Your task to perform on an android device: toggle airplane mode Image 0: 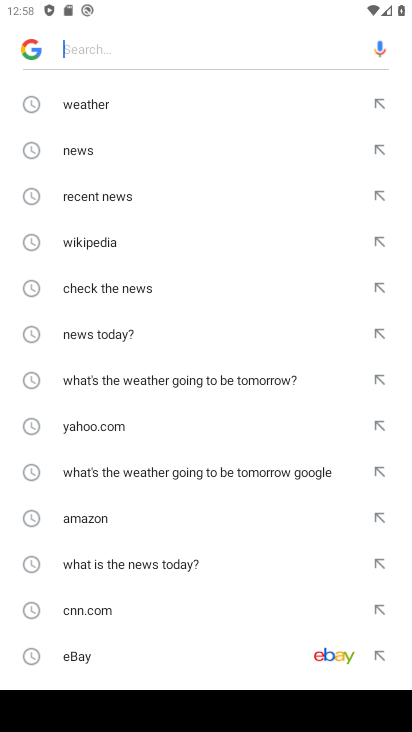
Step 0: press home button
Your task to perform on an android device: toggle airplane mode Image 1: 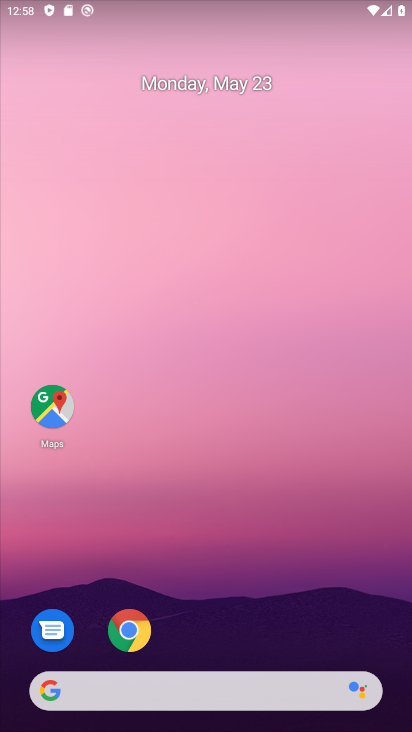
Step 1: drag from (321, 488) to (323, 113)
Your task to perform on an android device: toggle airplane mode Image 2: 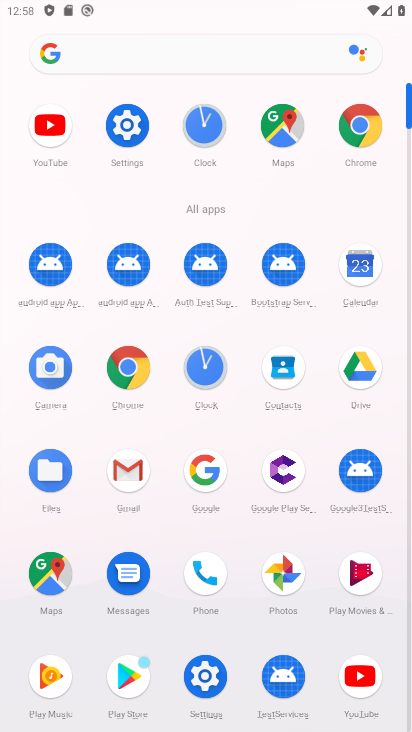
Step 2: click (198, 674)
Your task to perform on an android device: toggle airplane mode Image 3: 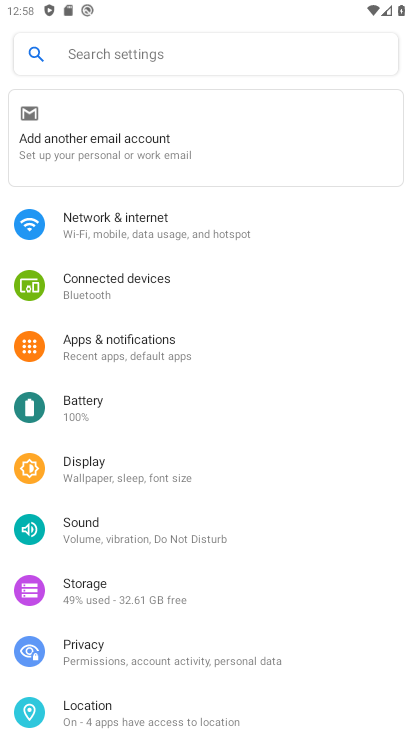
Step 3: click (171, 224)
Your task to perform on an android device: toggle airplane mode Image 4: 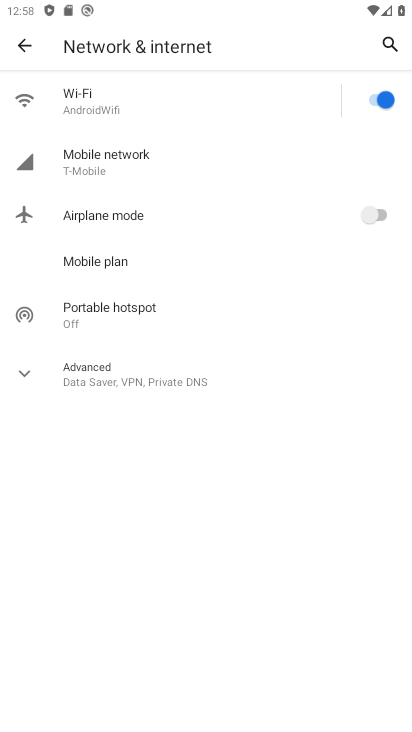
Step 4: click (387, 207)
Your task to perform on an android device: toggle airplane mode Image 5: 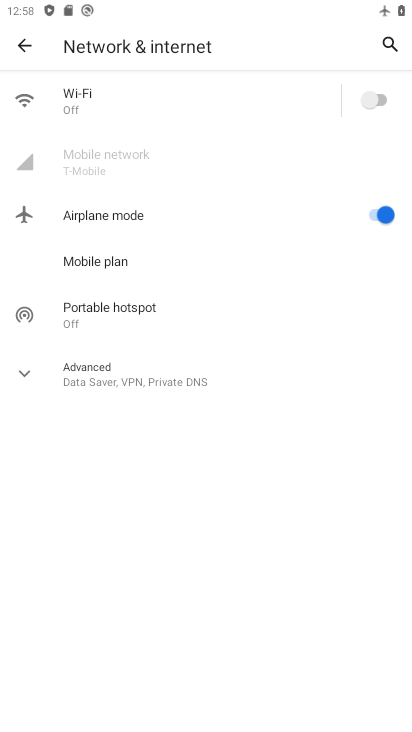
Step 5: task complete